Your task to perform on an android device: turn off javascript in the chrome app Image 0: 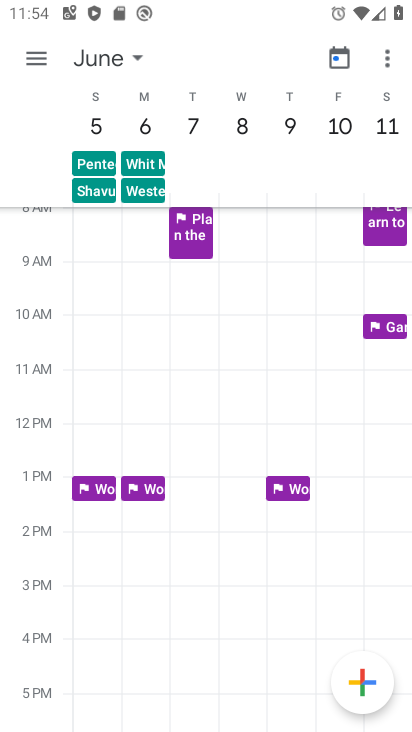
Step 0: press home button
Your task to perform on an android device: turn off javascript in the chrome app Image 1: 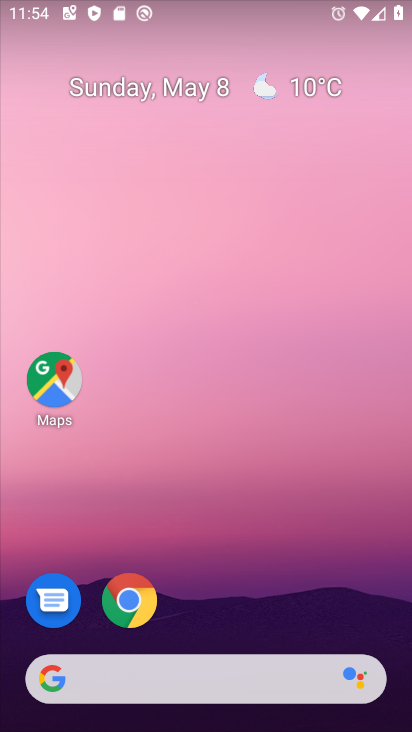
Step 1: click (128, 592)
Your task to perform on an android device: turn off javascript in the chrome app Image 2: 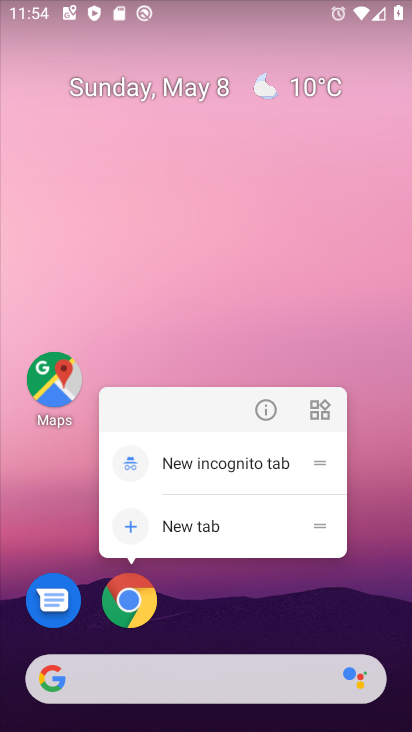
Step 2: click (275, 403)
Your task to perform on an android device: turn off javascript in the chrome app Image 3: 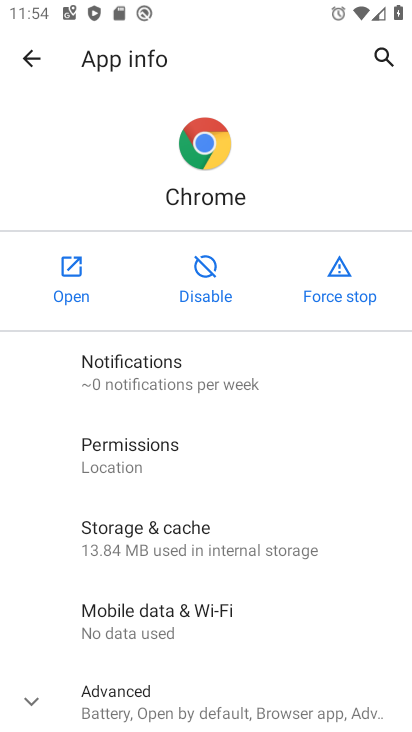
Step 3: click (66, 284)
Your task to perform on an android device: turn off javascript in the chrome app Image 4: 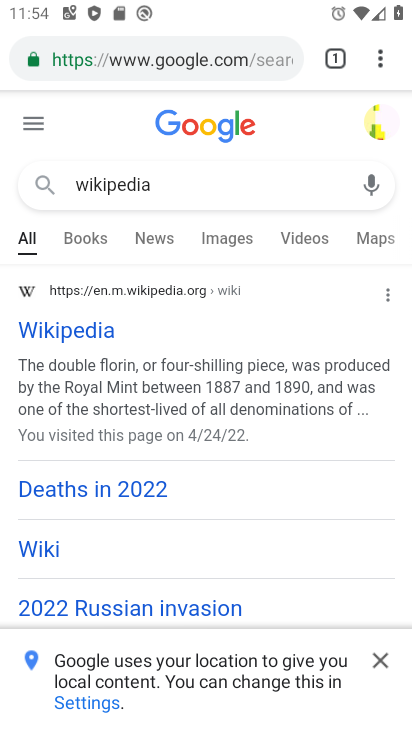
Step 4: click (378, 60)
Your task to perform on an android device: turn off javascript in the chrome app Image 5: 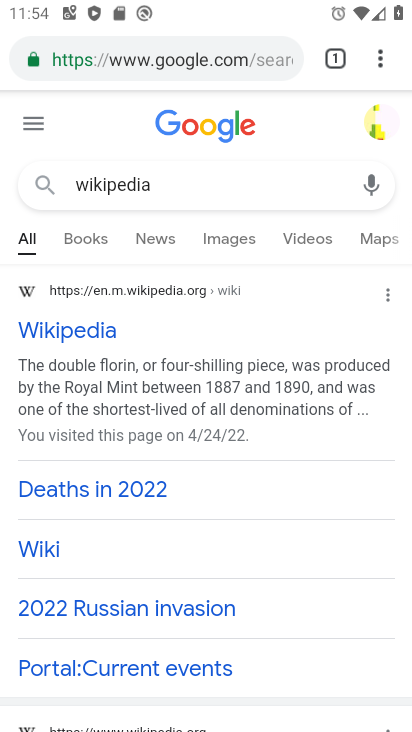
Step 5: click (379, 59)
Your task to perform on an android device: turn off javascript in the chrome app Image 6: 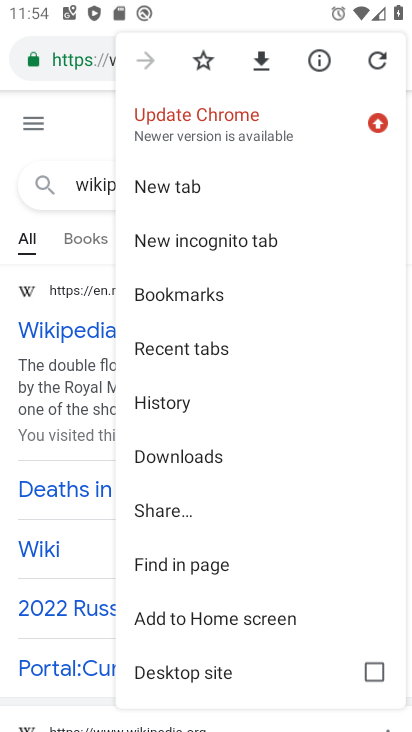
Step 6: drag from (194, 546) to (218, 218)
Your task to perform on an android device: turn off javascript in the chrome app Image 7: 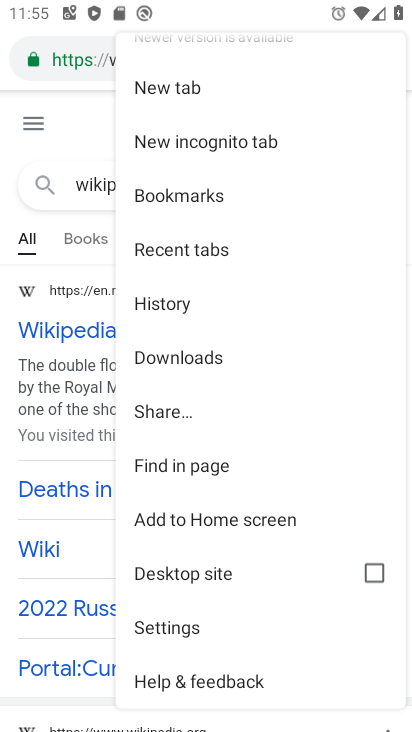
Step 7: click (191, 631)
Your task to perform on an android device: turn off javascript in the chrome app Image 8: 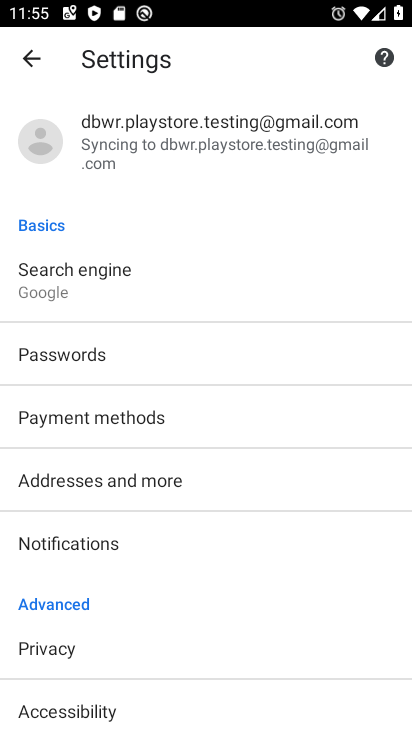
Step 8: drag from (93, 649) to (96, 417)
Your task to perform on an android device: turn off javascript in the chrome app Image 9: 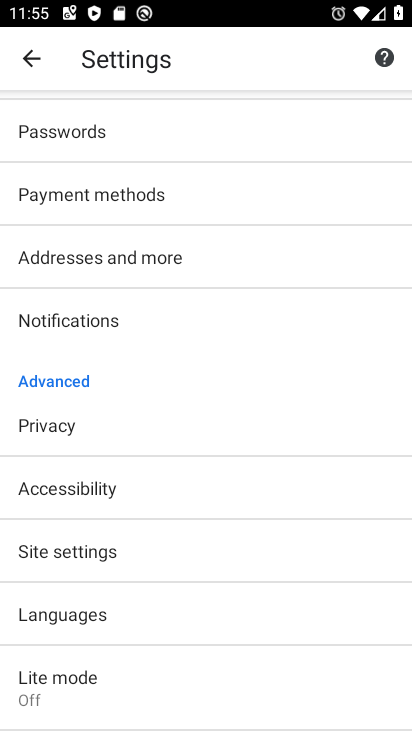
Step 9: click (60, 553)
Your task to perform on an android device: turn off javascript in the chrome app Image 10: 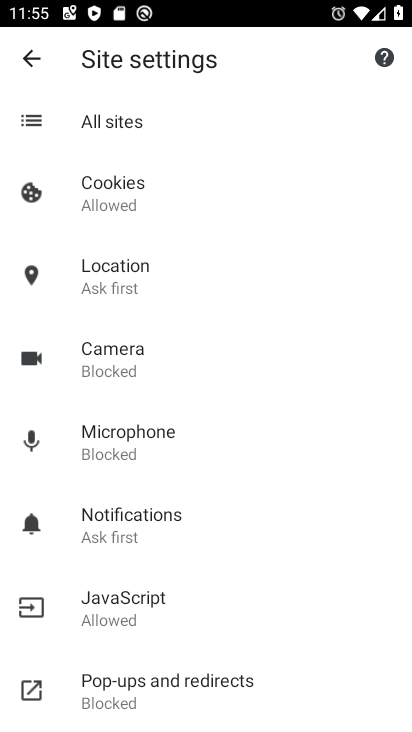
Step 10: click (132, 618)
Your task to perform on an android device: turn off javascript in the chrome app Image 11: 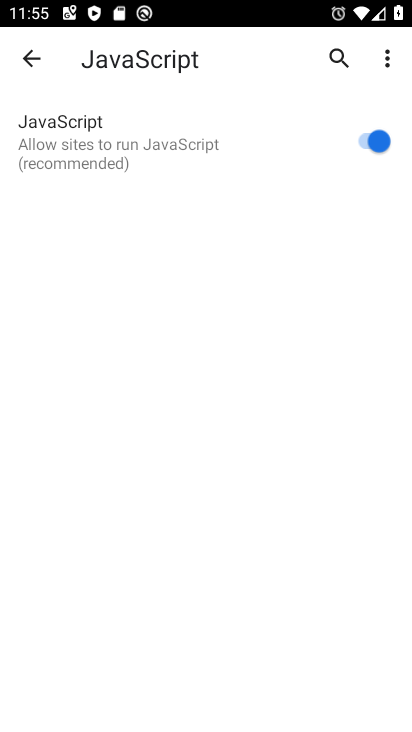
Step 11: click (386, 143)
Your task to perform on an android device: turn off javascript in the chrome app Image 12: 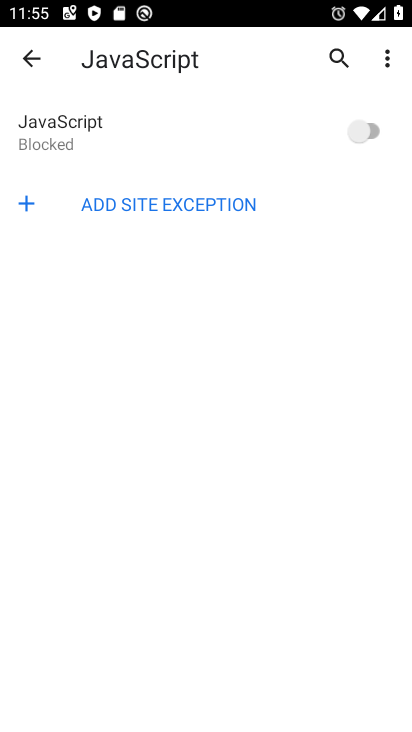
Step 12: task complete